Your task to perform on an android device: Open settings on Google Maps Image 0: 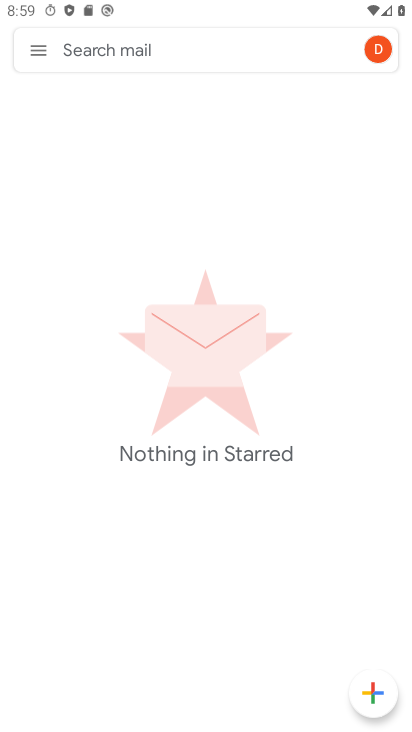
Step 0: drag from (303, 646) to (250, 286)
Your task to perform on an android device: Open settings on Google Maps Image 1: 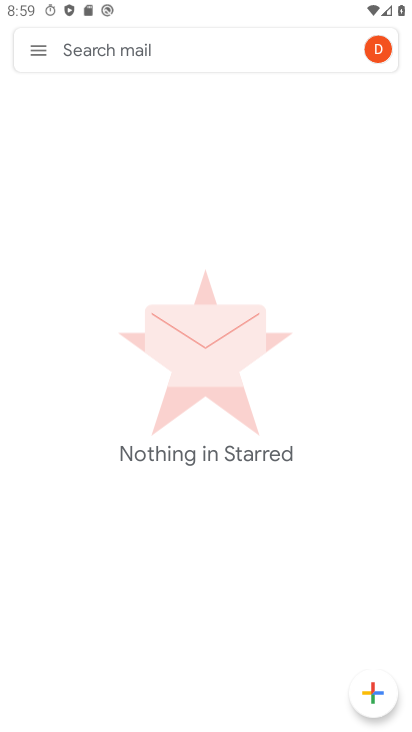
Step 1: press back button
Your task to perform on an android device: Open settings on Google Maps Image 2: 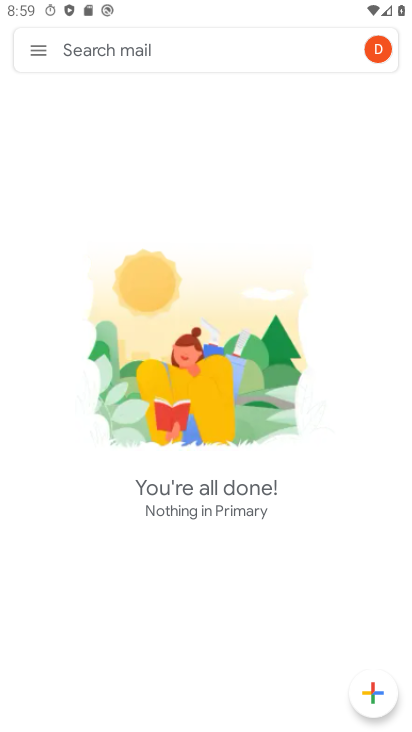
Step 2: press home button
Your task to perform on an android device: Open settings on Google Maps Image 3: 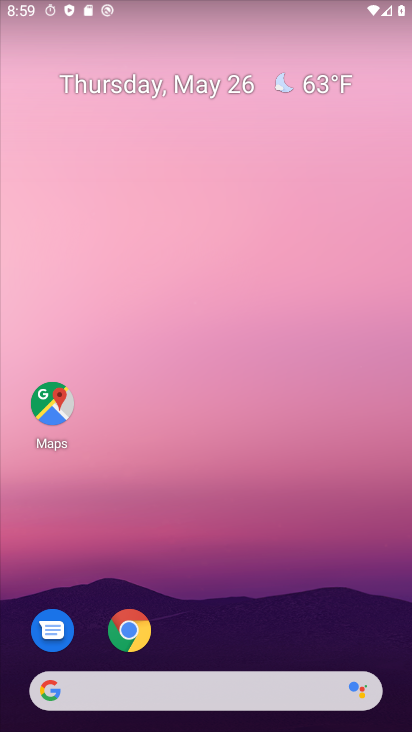
Step 3: drag from (290, 709) to (222, 16)
Your task to perform on an android device: Open settings on Google Maps Image 4: 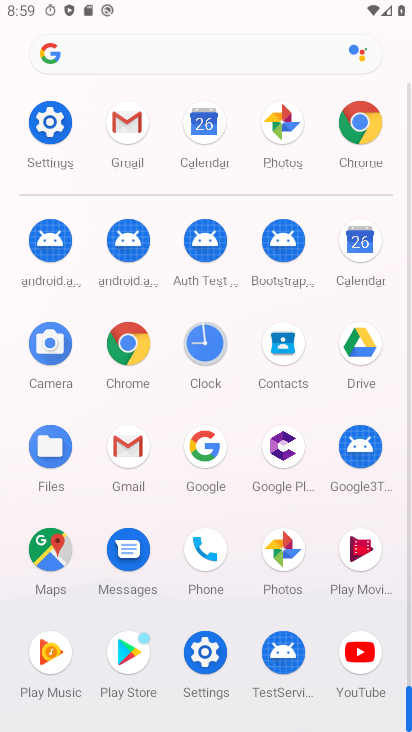
Step 4: click (65, 551)
Your task to perform on an android device: Open settings on Google Maps Image 5: 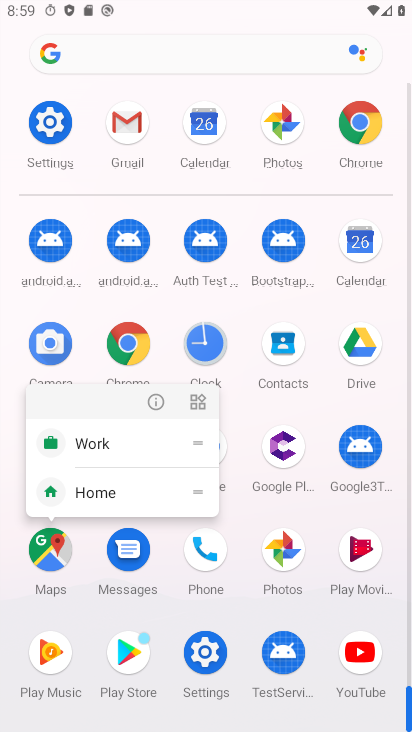
Step 5: click (66, 550)
Your task to perform on an android device: Open settings on Google Maps Image 6: 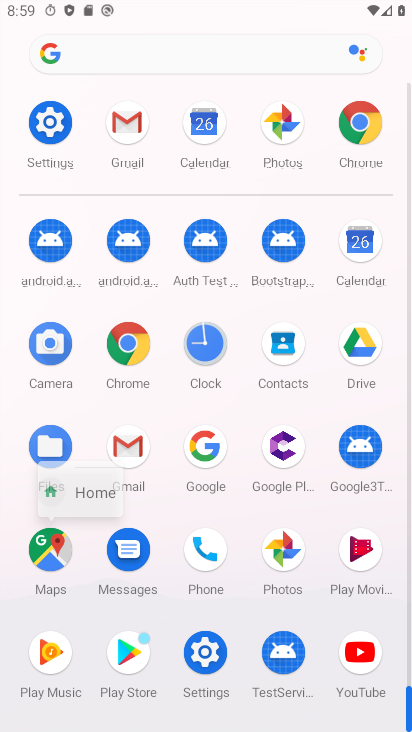
Step 6: click (66, 550)
Your task to perform on an android device: Open settings on Google Maps Image 7: 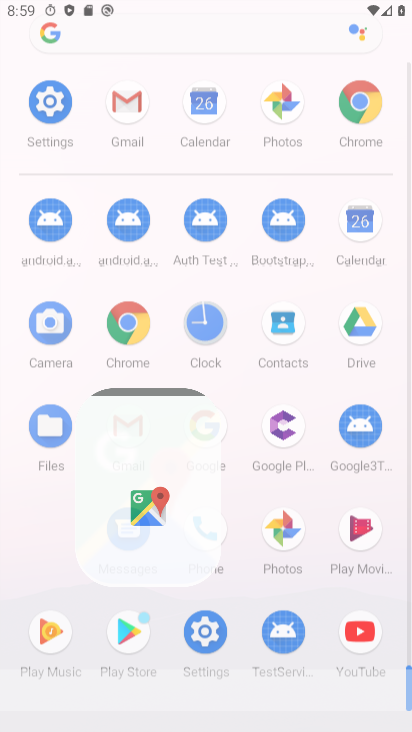
Step 7: click (66, 550)
Your task to perform on an android device: Open settings on Google Maps Image 8: 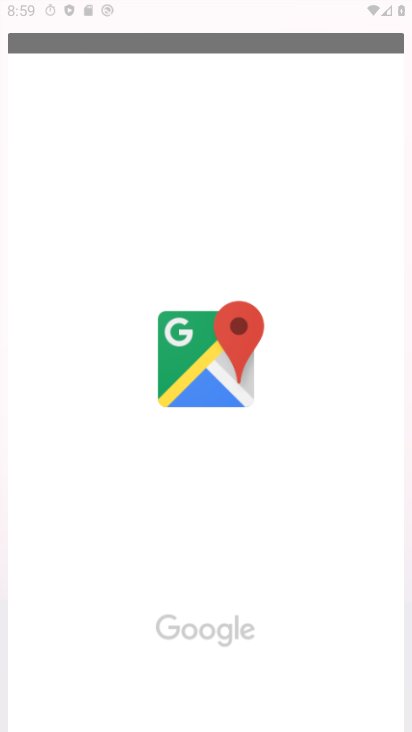
Step 8: click (68, 554)
Your task to perform on an android device: Open settings on Google Maps Image 9: 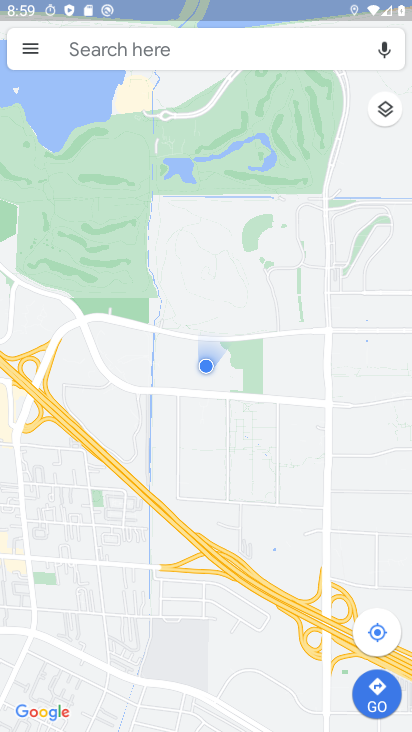
Step 9: click (33, 49)
Your task to perform on an android device: Open settings on Google Maps Image 10: 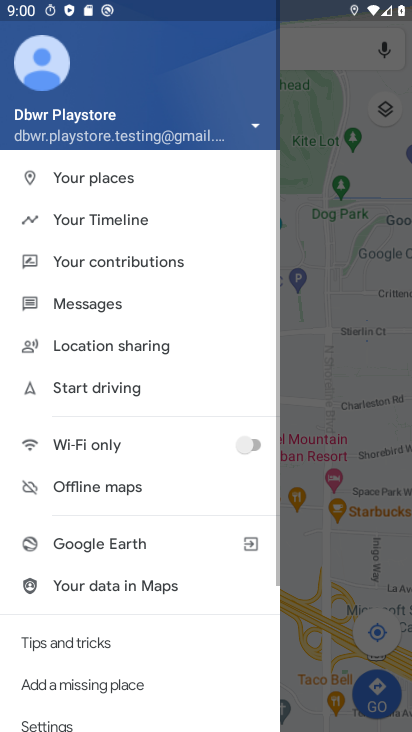
Step 10: click (35, 54)
Your task to perform on an android device: Open settings on Google Maps Image 11: 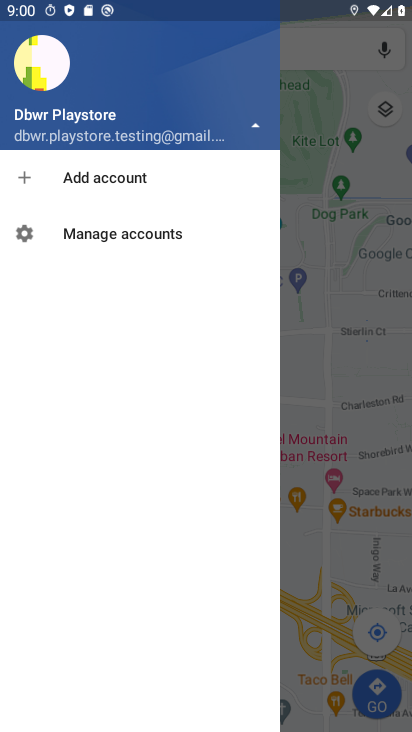
Step 11: click (263, 126)
Your task to perform on an android device: Open settings on Google Maps Image 12: 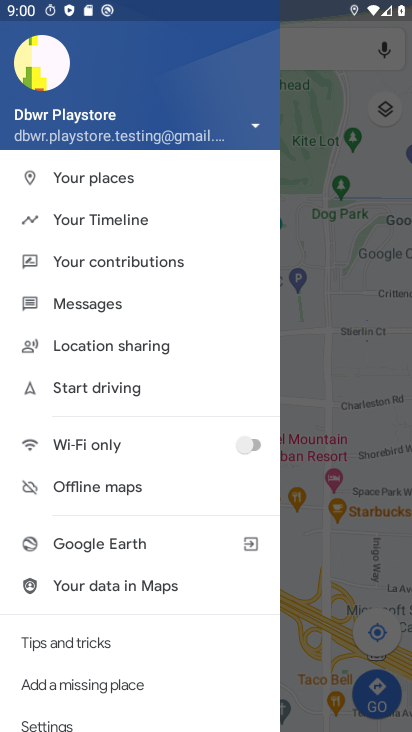
Step 12: click (136, 222)
Your task to perform on an android device: Open settings on Google Maps Image 13: 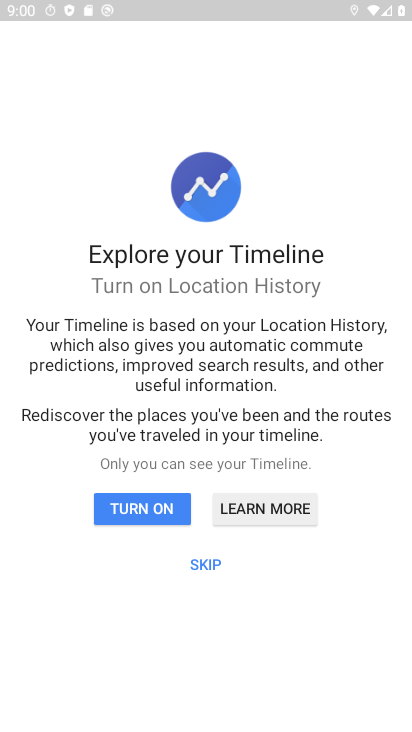
Step 13: click (156, 508)
Your task to perform on an android device: Open settings on Google Maps Image 14: 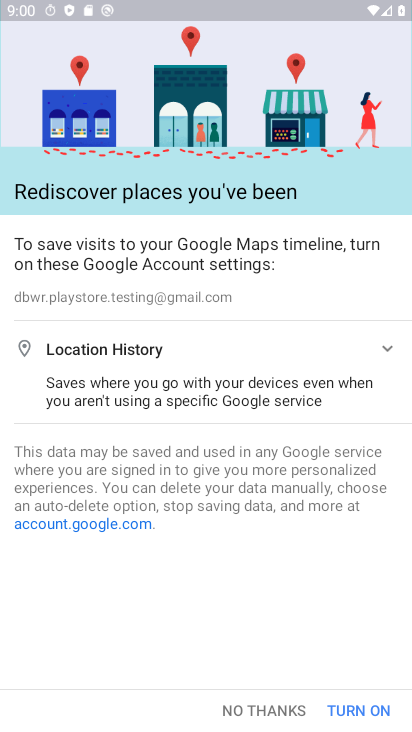
Step 14: task complete